Your task to perform on an android device: Open the Play Movies app and select the watchlist tab. Image 0: 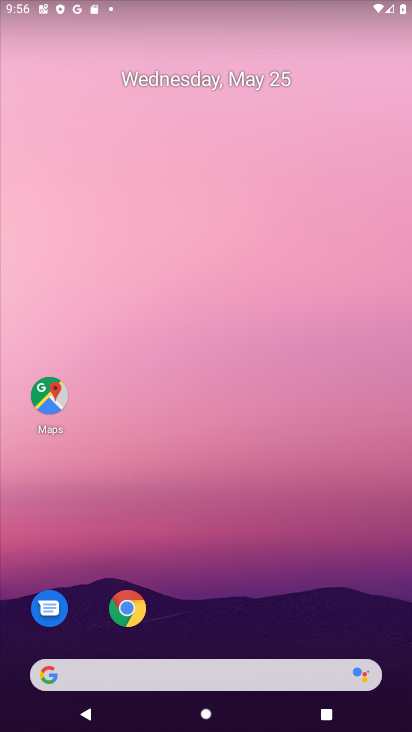
Step 0: drag from (230, 624) to (340, 20)
Your task to perform on an android device: Open the Play Movies app and select the watchlist tab. Image 1: 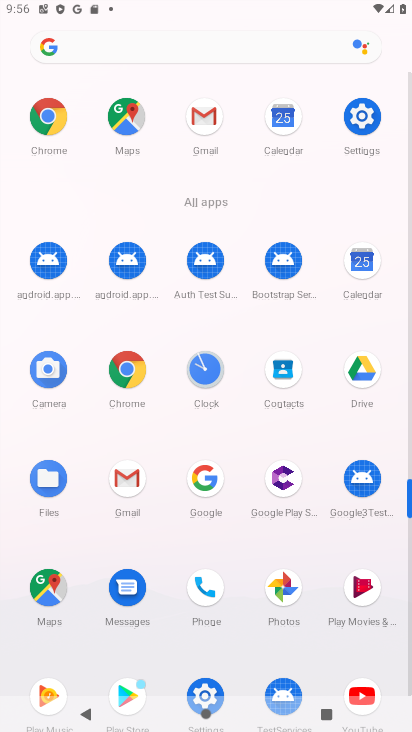
Step 1: click (369, 597)
Your task to perform on an android device: Open the Play Movies app and select the watchlist tab. Image 2: 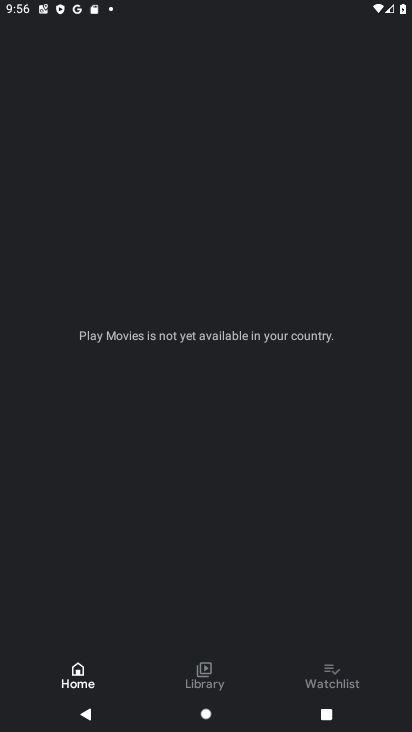
Step 2: click (326, 676)
Your task to perform on an android device: Open the Play Movies app and select the watchlist tab. Image 3: 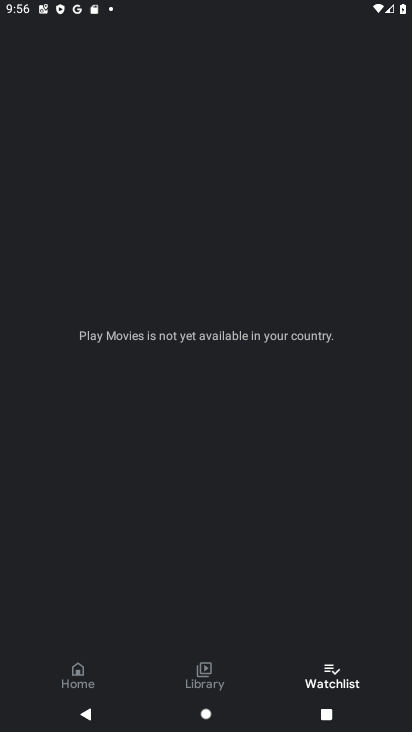
Step 3: task complete